Your task to perform on an android device: Open network settings Image 0: 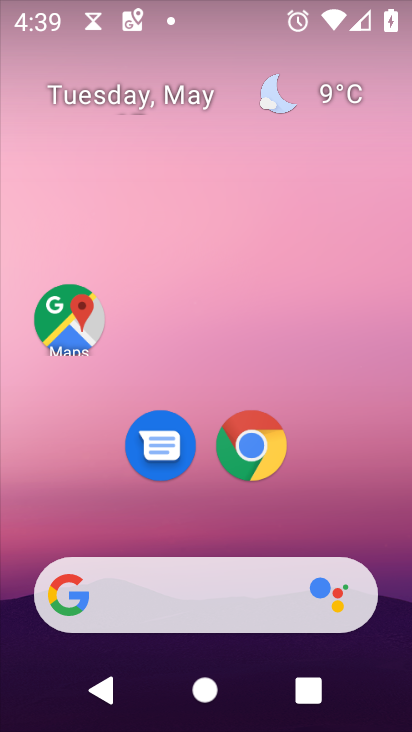
Step 0: drag from (301, 632) to (396, 28)
Your task to perform on an android device: Open network settings Image 1: 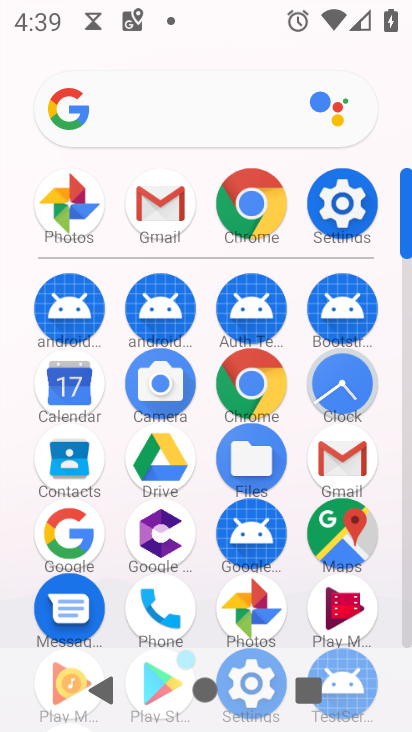
Step 1: click (330, 215)
Your task to perform on an android device: Open network settings Image 2: 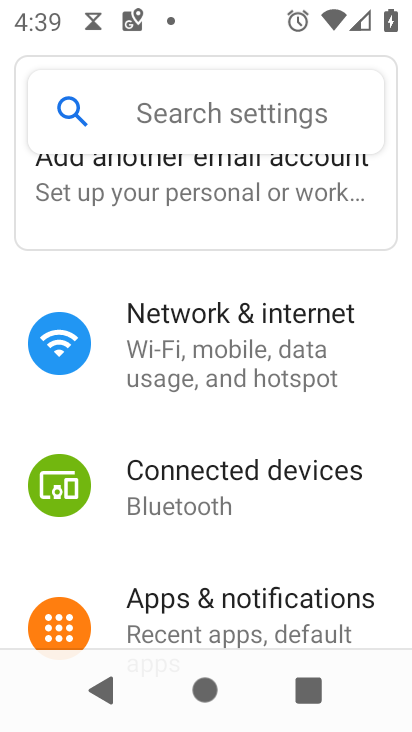
Step 2: click (247, 379)
Your task to perform on an android device: Open network settings Image 3: 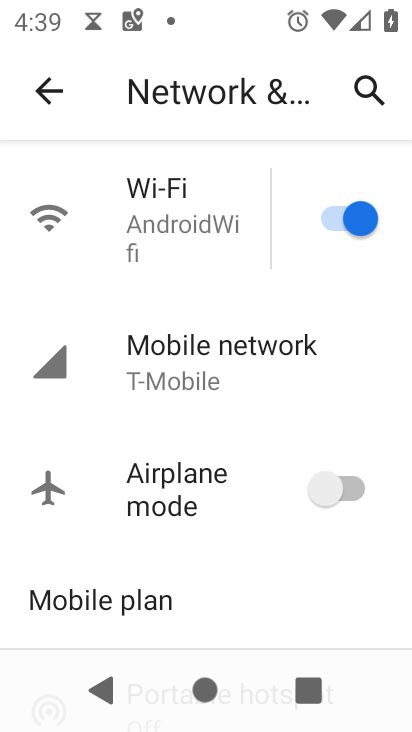
Step 3: task complete